Your task to perform on an android device: turn notification dots off Image 0: 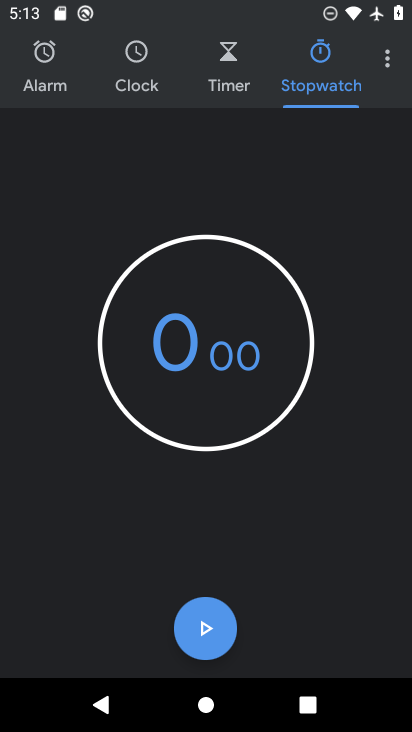
Step 0: press home button
Your task to perform on an android device: turn notification dots off Image 1: 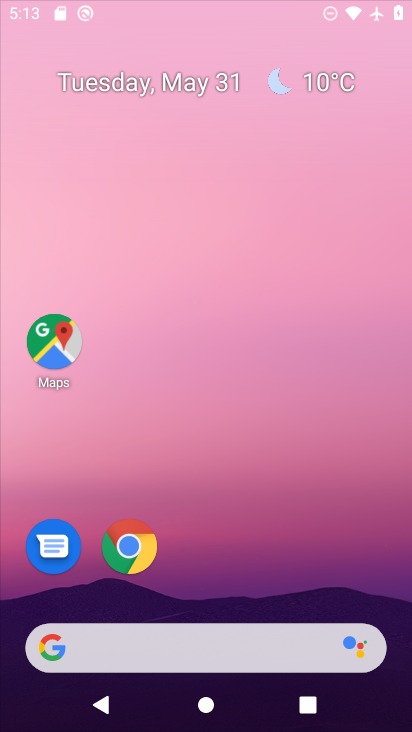
Step 1: drag from (341, 594) to (202, 62)
Your task to perform on an android device: turn notification dots off Image 2: 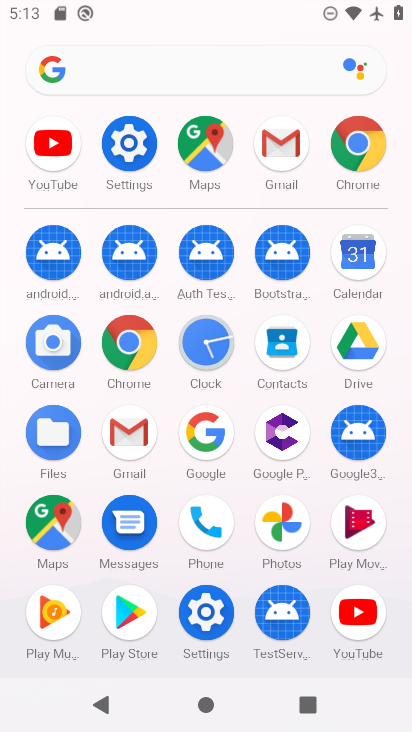
Step 2: click (127, 108)
Your task to perform on an android device: turn notification dots off Image 3: 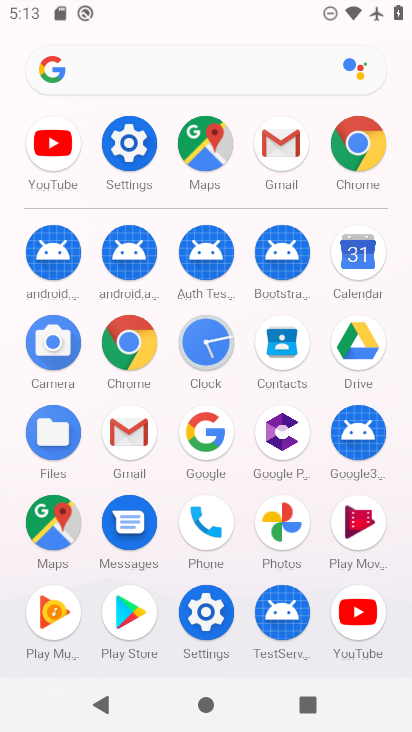
Step 3: click (133, 163)
Your task to perform on an android device: turn notification dots off Image 4: 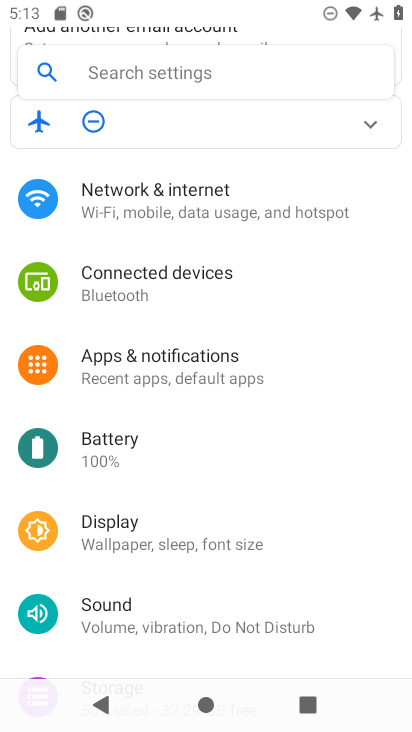
Step 4: click (191, 358)
Your task to perform on an android device: turn notification dots off Image 5: 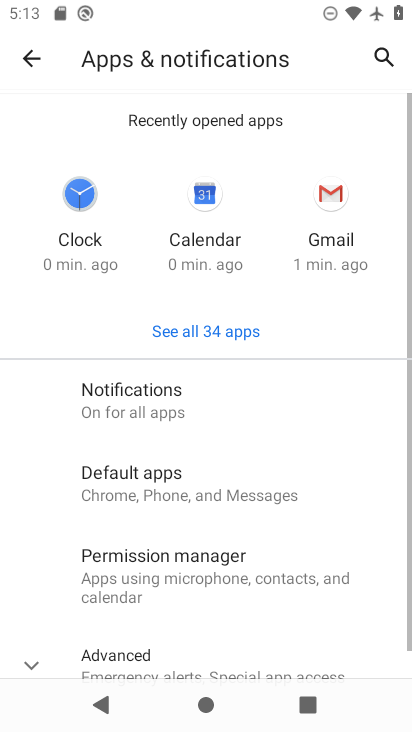
Step 5: click (169, 411)
Your task to perform on an android device: turn notification dots off Image 6: 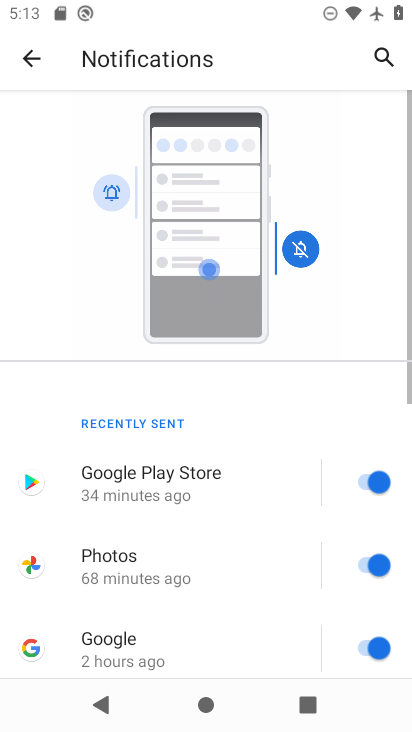
Step 6: drag from (212, 591) to (231, 64)
Your task to perform on an android device: turn notification dots off Image 7: 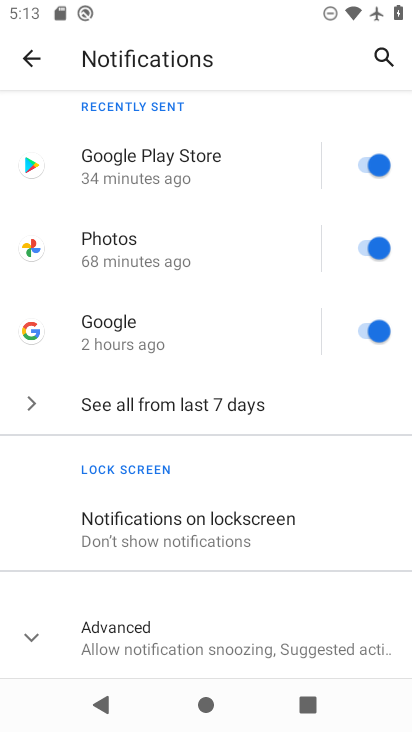
Step 7: click (227, 629)
Your task to perform on an android device: turn notification dots off Image 8: 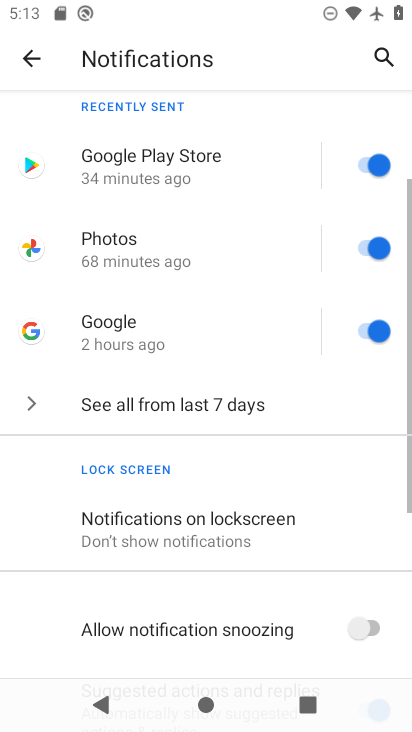
Step 8: task complete